Your task to perform on an android device: Open Chrome and go to settings Image 0: 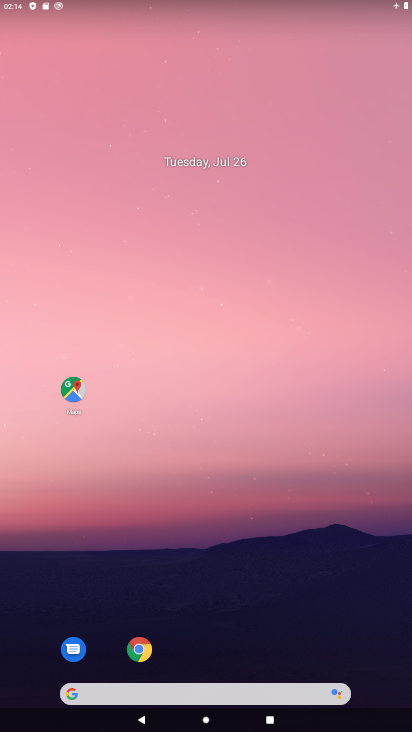
Step 0: click (137, 648)
Your task to perform on an android device: Open Chrome and go to settings Image 1: 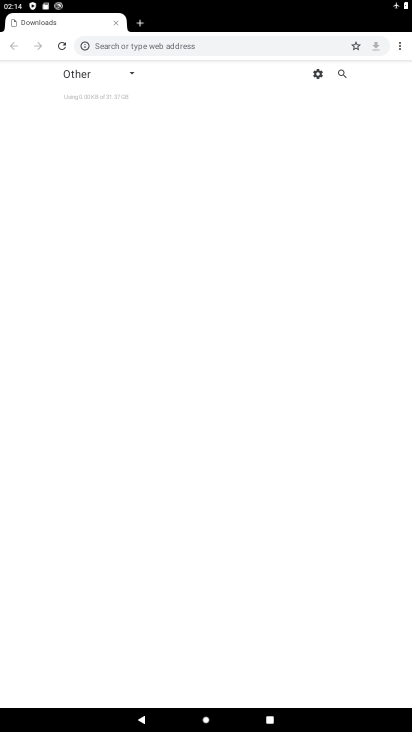
Step 1: click (400, 42)
Your task to perform on an android device: Open Chrome and go to settings Image 2: 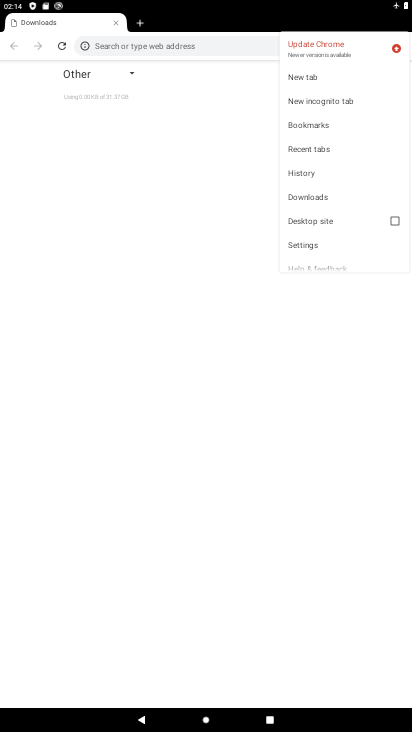
Step 2: click (313, 245)
Your task to perform on an android device: Open Chrome and go to settings Image 3: 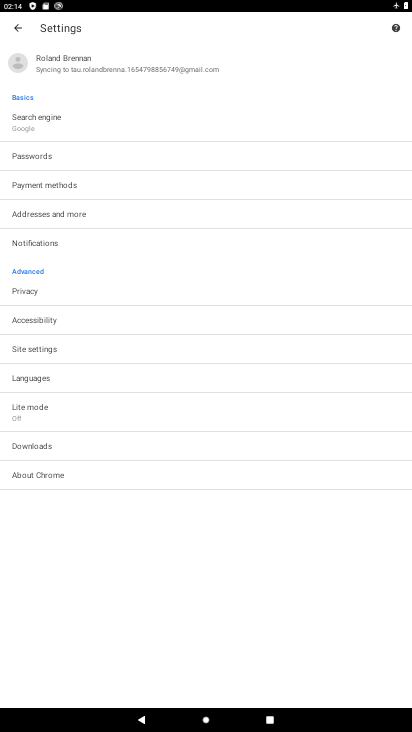
Step 3: task complete